Your task to perform on an android device: What's on my calendar today? Image 0: 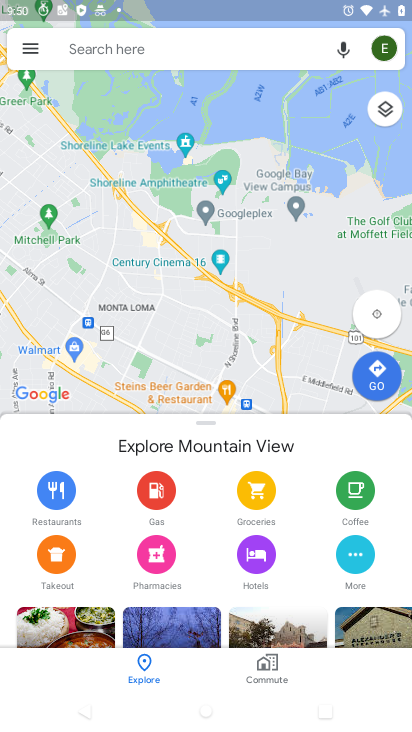
Step 0: press home button
Your task to perform on an android device: What's on my calendar today? Image 1: 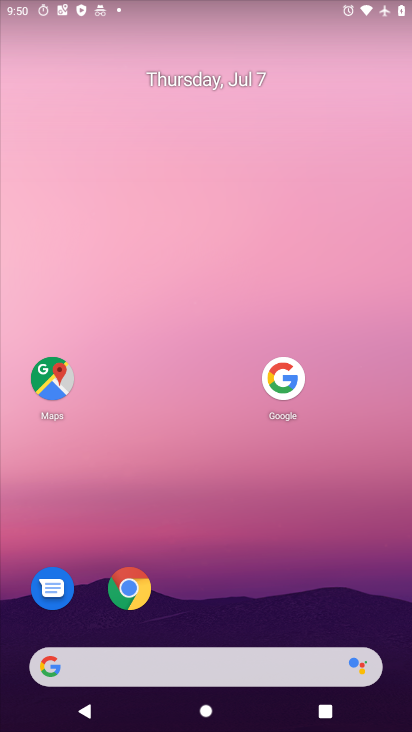
Step 1: drag from (191, 663) to (270, 158)
Your task to perform on an android device: What's on my calendar today? Image 2: 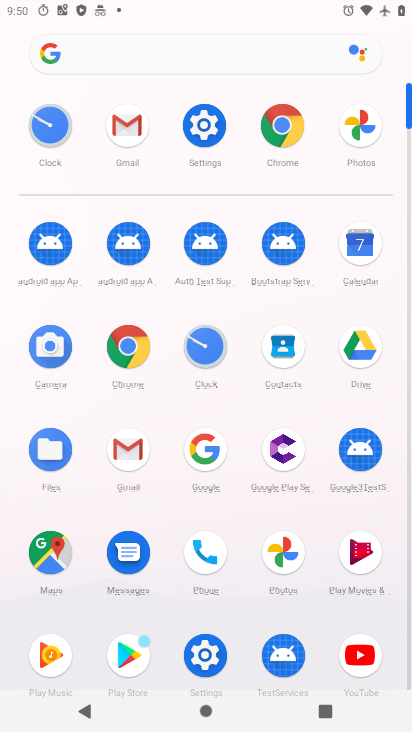
Step 2: click (358, 257)
Your task to perform on an android device: What's on my calendar today? Image 3: 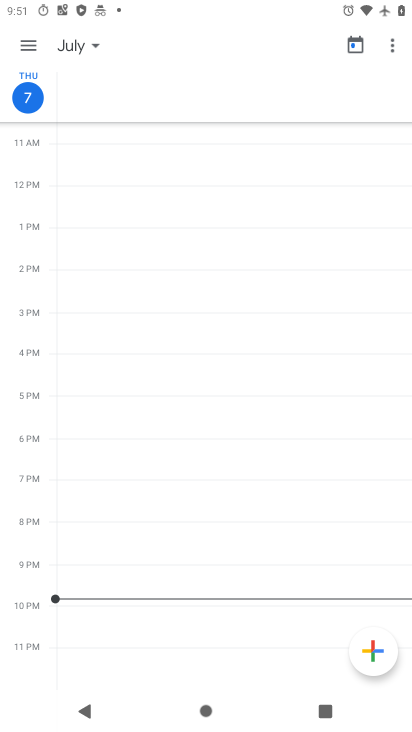
Step 3: click (21, 44)
Your task to perform on an android device: What's on my calendar today? Image 4: 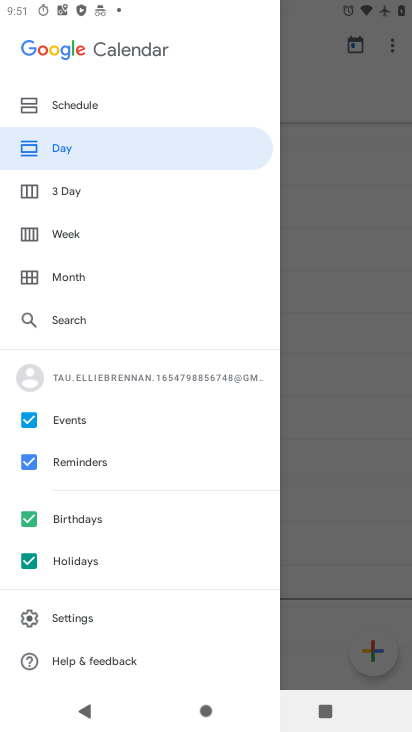
Step 4: click (93, 111)
Your task to perform on an android device: What's on my calendar today? Image 5: 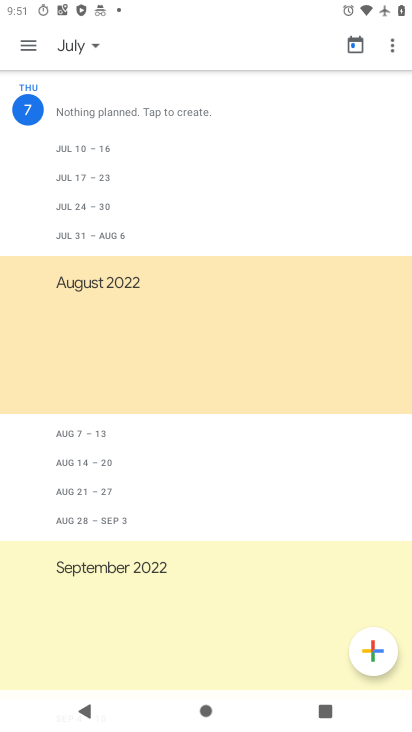
Step 5: task complete